Your task to perform on an android device: turn notification dots on Image 0: 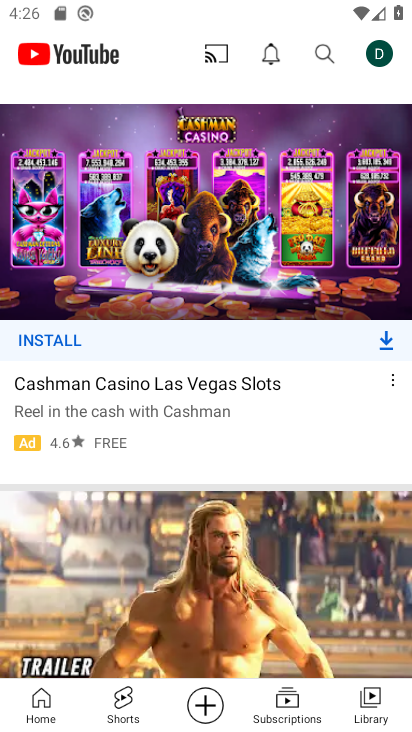
Step 0: press home button
Your task to perform on an android device: turn notification dots on Image 1: 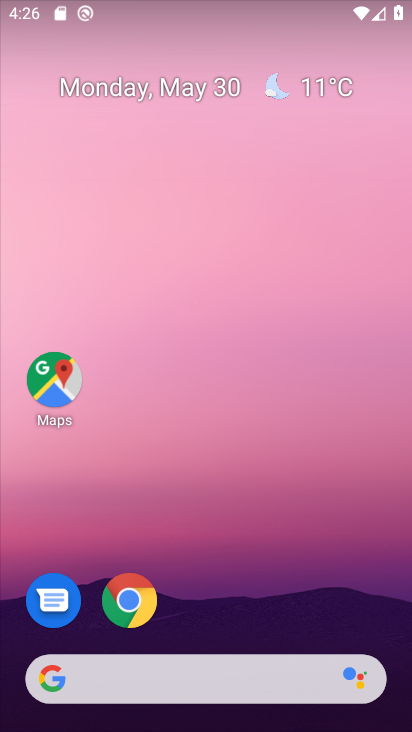
Step 1: drag from (316, 422) to (275, 23)
Your task to perform on an android device: turn notification dots on Image 2: 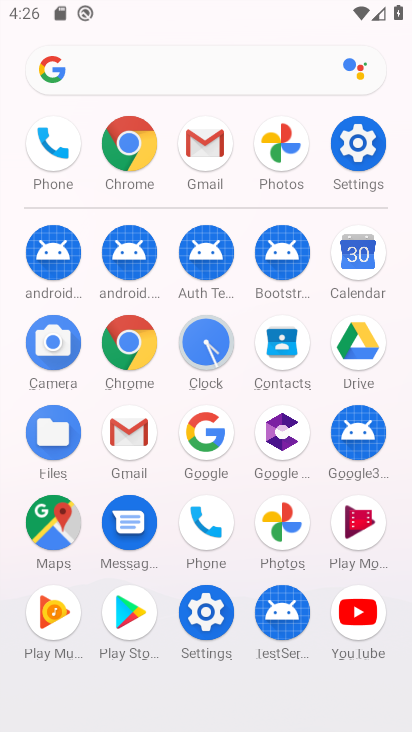
Step 2: click (351, 148)
Your task to perform on an android device: turn notification dots on Image 3: 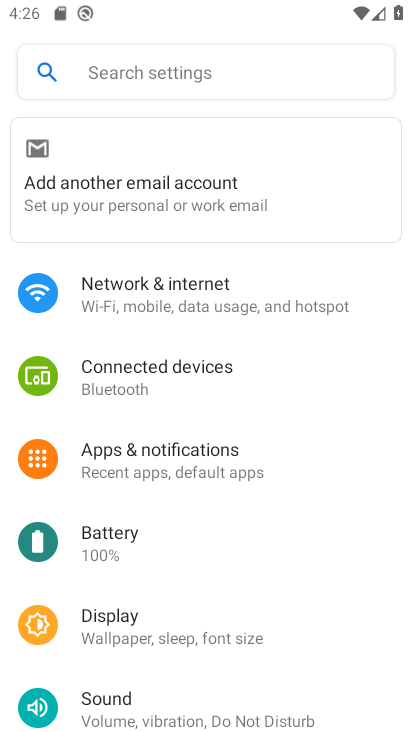
Step 3: click (180, 463)
Your task to perform on an android device: turn notification dots on Image 4: 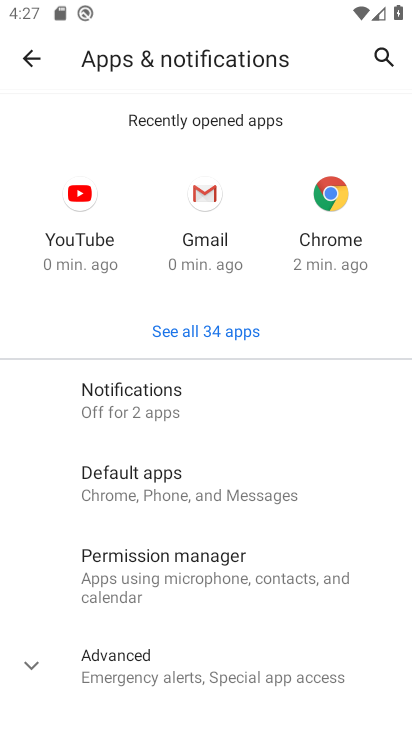
Step 4: click (139, 394)
Your task to perform on an android device: turn notification dots on Image 5: 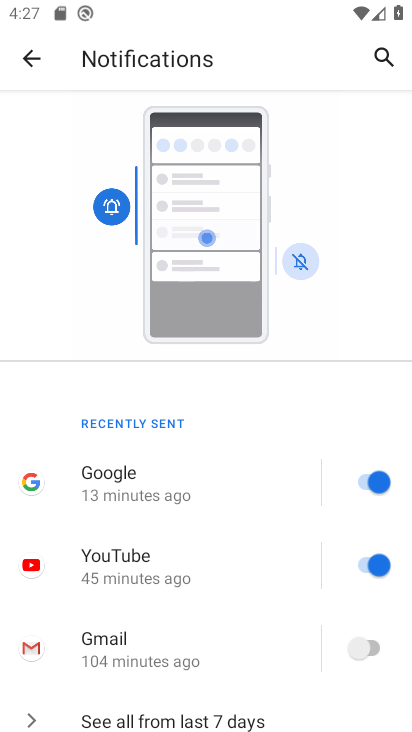
Step 5: drag from (130, 647) to (212, 170)
Your task to perform on an android device: turn notification dots on Image 6: 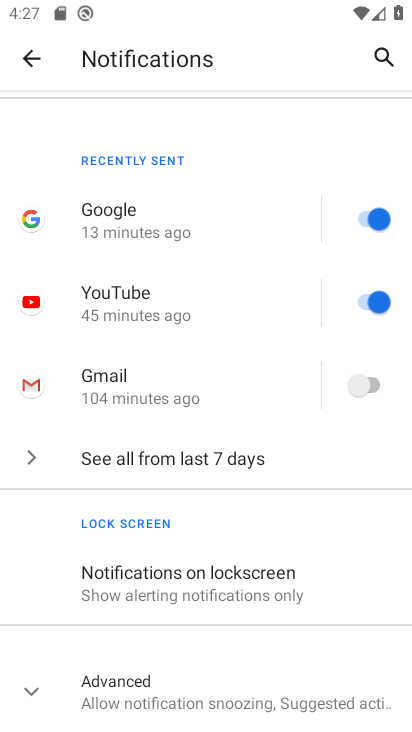
Step 6: drag from (228, 577) to (278, 177)
Your task to perform on an android device: turn notification dots on Image 7: 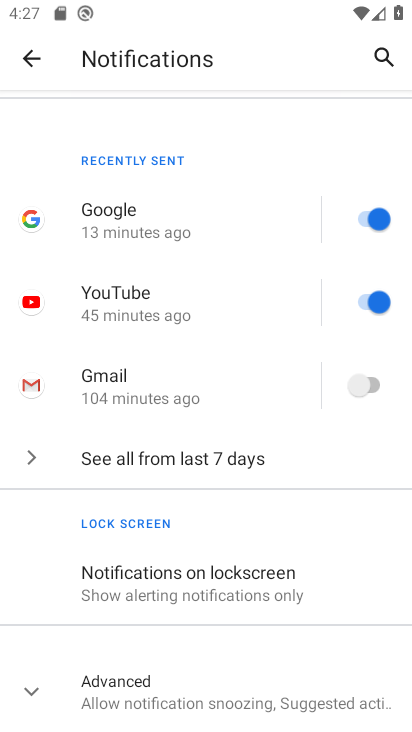
Step 7: click (173, 699)
Your task to perform on an android device: turn notification dots on Image 8: 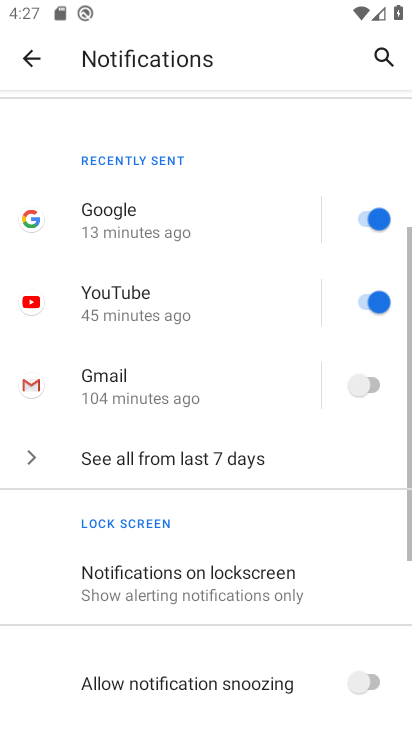
Step 8: drag from (183, 646) to (252, 240)
Your task to perform on an android device: turn notification dots on Image 9: 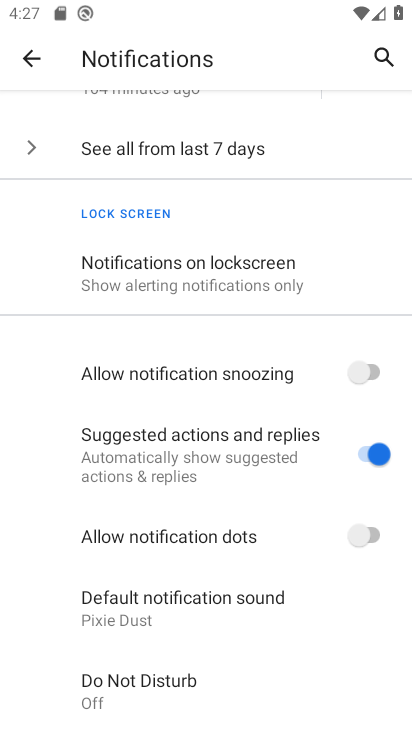
Step 9: drag from (197, 622) to (227, 285)
Your task to perform on an android device: turn notification dots on Image 10: 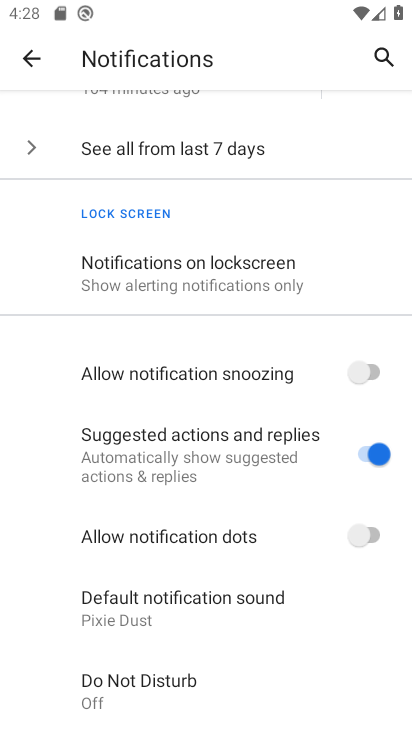
Step 10: click (368, 546)
Your task to perform on an android device: turn notification dots on Image 11: 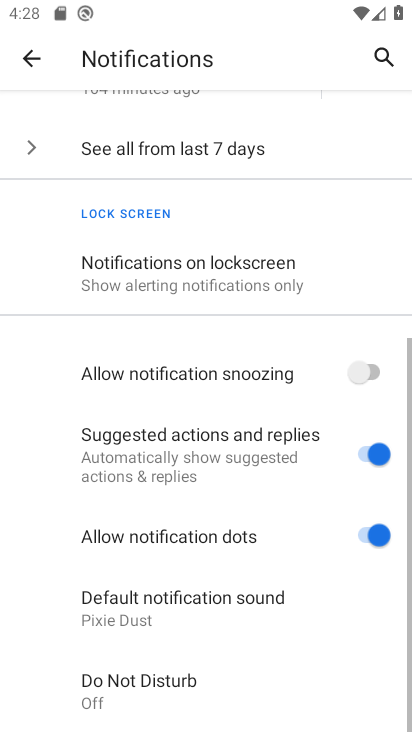
Step 11: task complete